Your task to perform on an android device: Do I have any events tomorrow? Image 0: 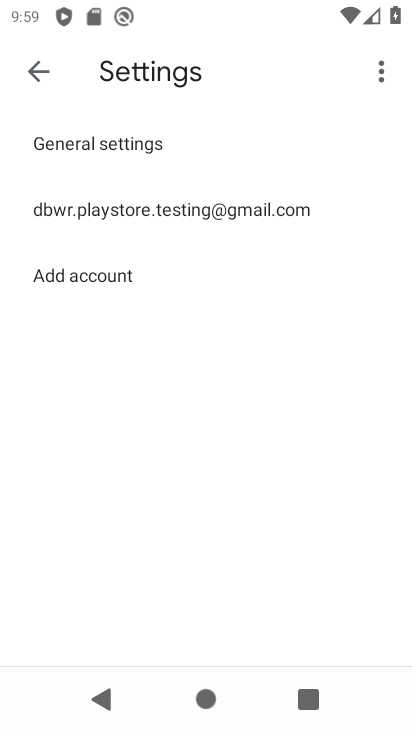
Step 0: press home button
Your task to perform on an android device: Do I have any events tomorrow? Image 1: 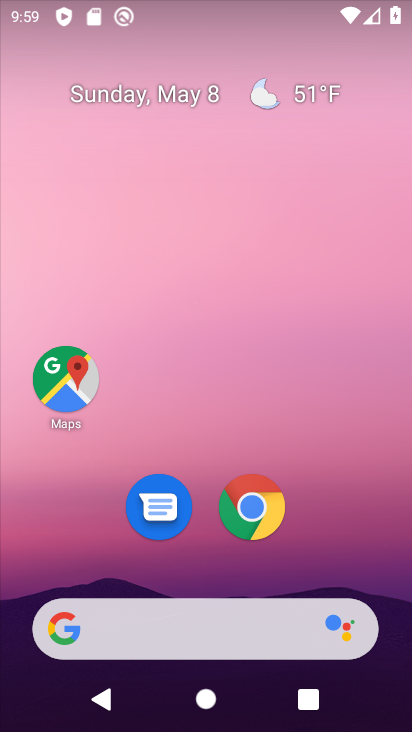
Step 1: drag from (207, 560) to (165, 100)
Your task to perform on an android device: Do I have any events tomorrow? Image 2: 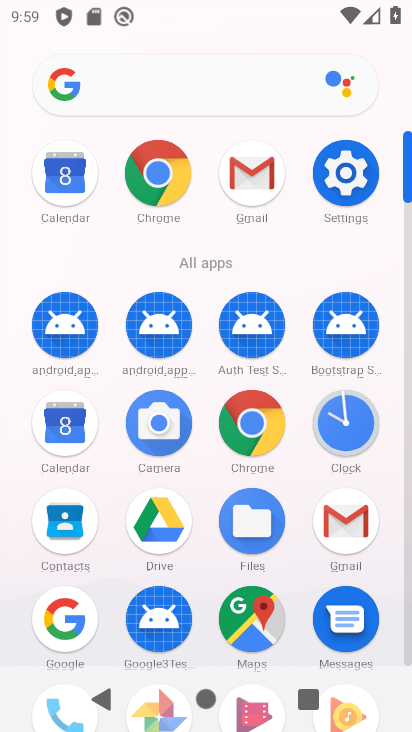
Step 2: click (65, 417)
Your task to perform on an android device: Do I have any events tomorrow? Image 3: 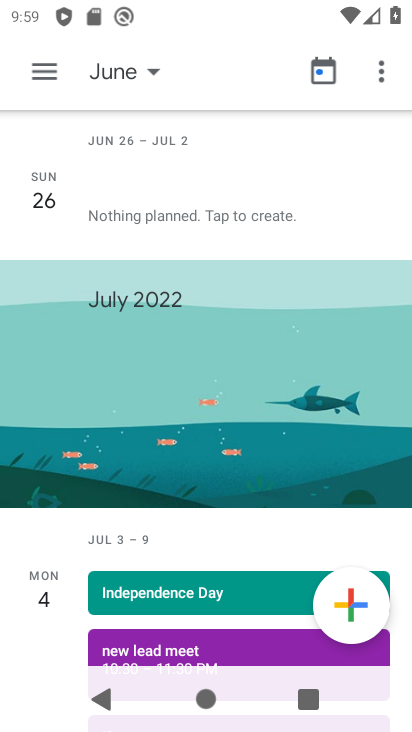
Step 3: click (43, 64)
Your task to perform on an android device: Do I have any events tomorrow? Image 4: 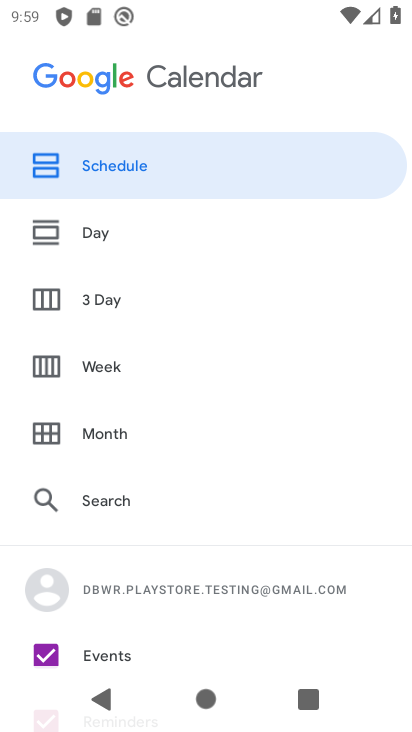
Step 4: click (63, 223)
Your task to perform on an android device: Do I have any events tomorrow? Image 5: 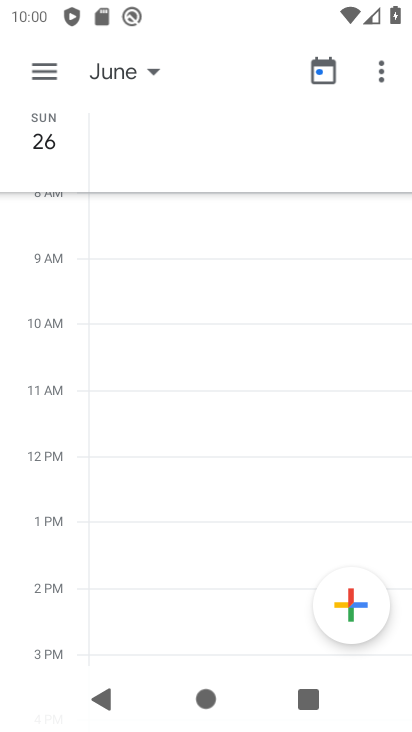
Step 5: click (157, 66)
Your task to perform on an android device: Do I have any events tomorrow? Image 6: 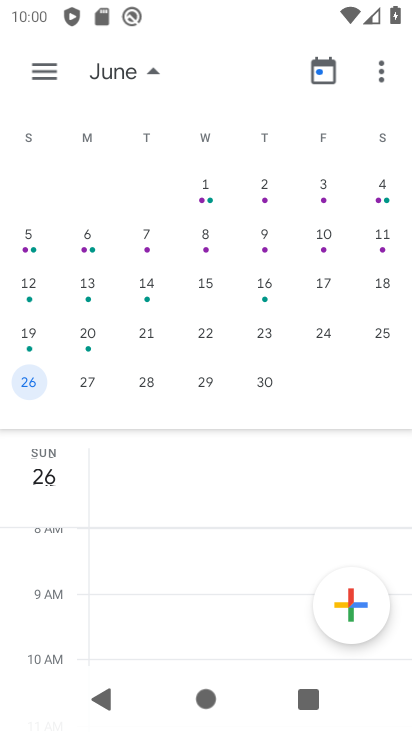
Step 6: drag from (40, 281) to (407, 270)
Your task to perform on an android device: Do I have any events tomorrow? Image 7: 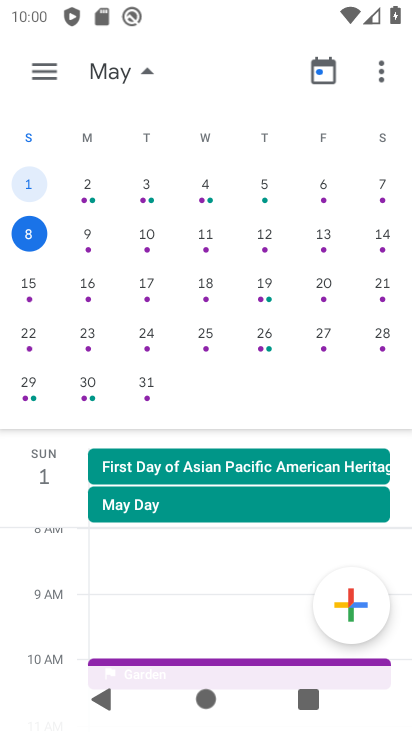
Step 7: click (25, 231)
Your task to perform on an android device: Do I have any events tomorrow? Image 8: 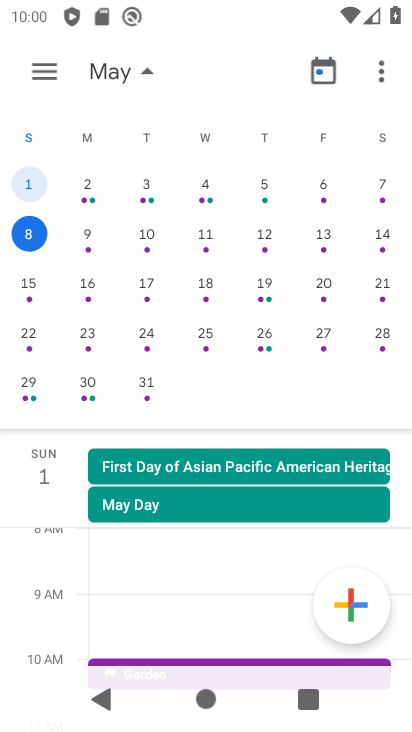
Step 8: click (26, 236)
Your task to perform on an android device: Do I have any events tomorrow? Image 9: 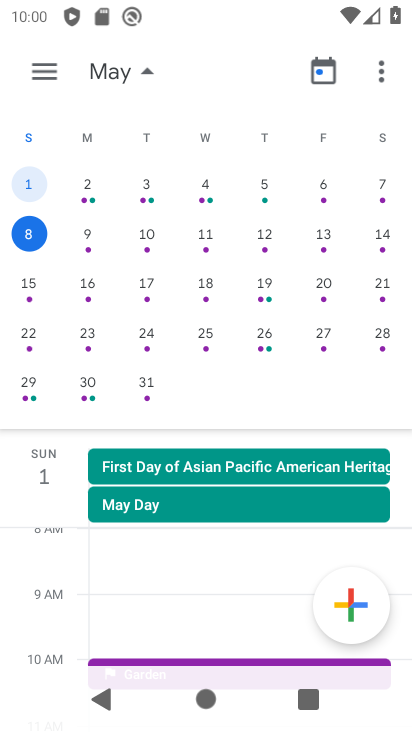
Step 9: click (34, 236)
Your task to perform on an android device: Do I have any events tomorrow? Image 10: 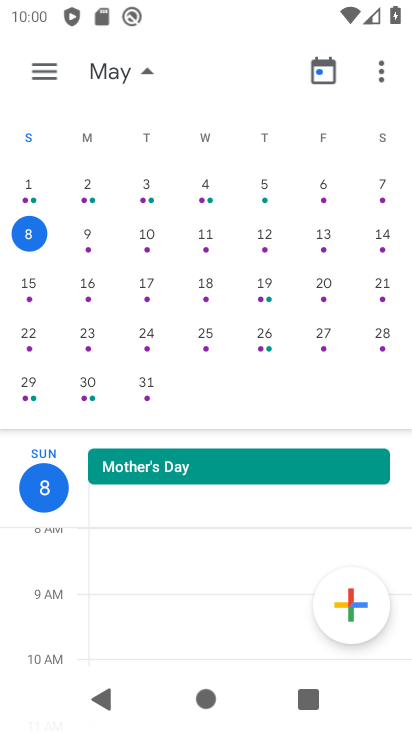
Step 10: click (82, 239)
Your task to perform on an android device: Do I have any events tomorrow? Image 11: 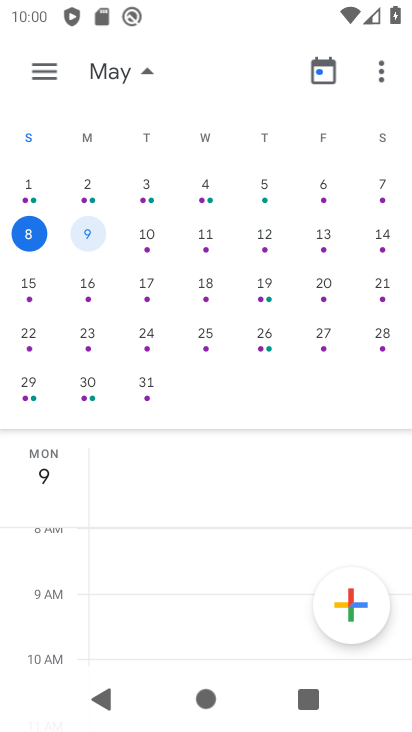
Step 11: click (58, 480)
Your task to perform on an android device: Do I have any events tomorrow? Image 12: 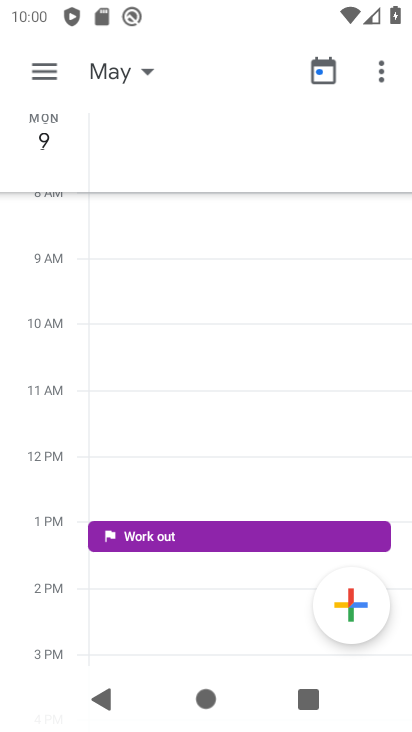
Step 12: task complete